Your task to perform on an android device: add a contact Image 0: 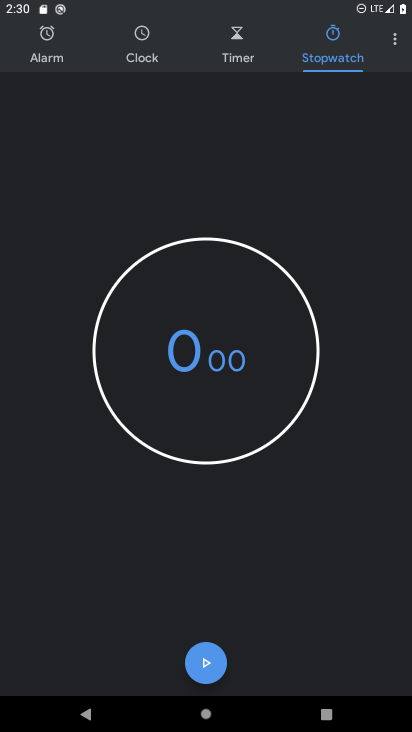
Step 0: press home button
Your task to perform on an android device: add a contact Image 1: 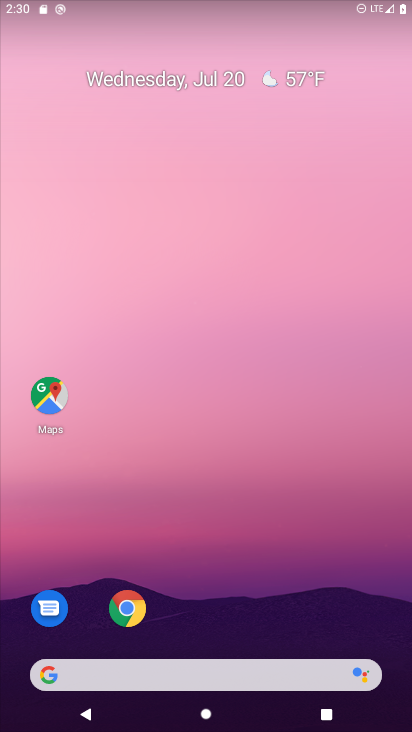
Step 1: drag from (240, 720) to (228, 158)
Your task to perform on an android device: add a contact Image 2: 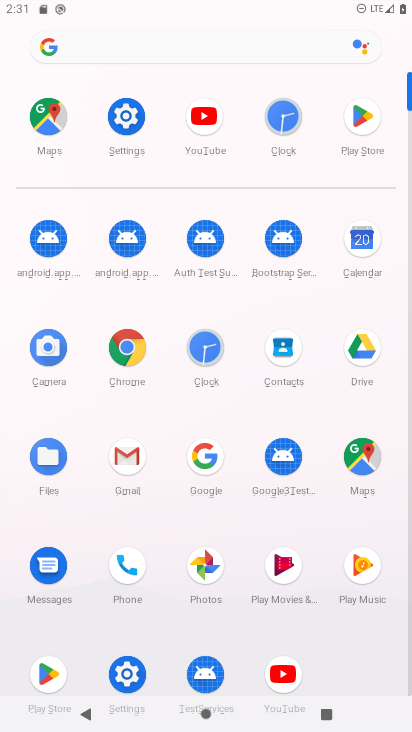
Step 2: click (290, 340)
Your task to perform on an android device: add a contact Image 3: 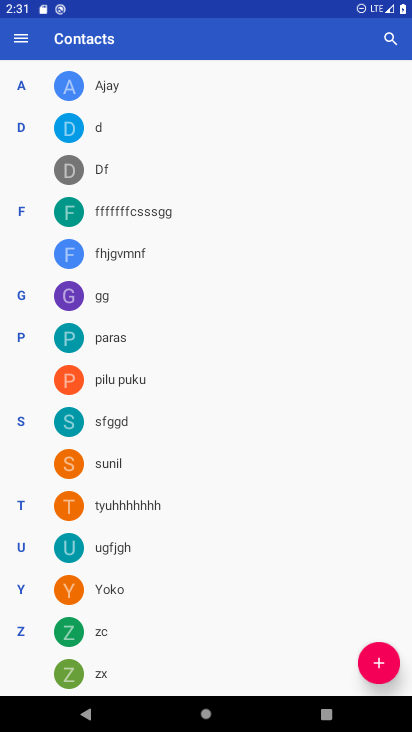
Step 3: click (379, 666)
Your task to perform on an android device: add a contact Image 4: 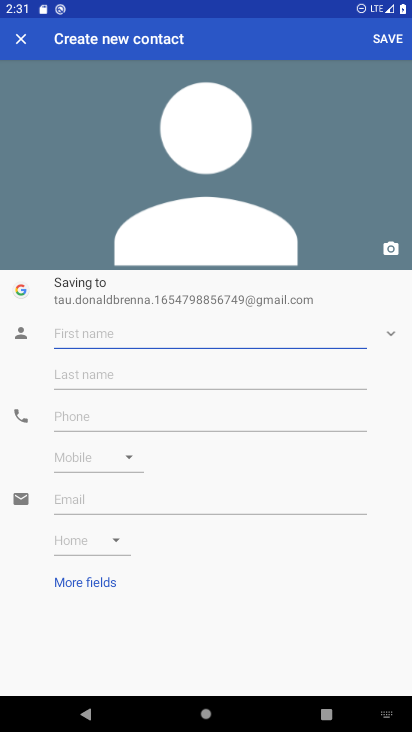
Step 4: type "parshuram"
Your task to perform on an android device: add a contact Image 5: 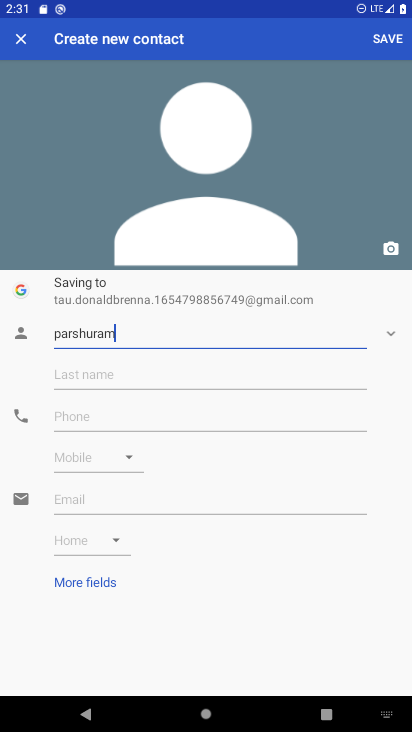
Step 5: click (115, 406)
Your task to perform on an android device: add a contact Image 6: 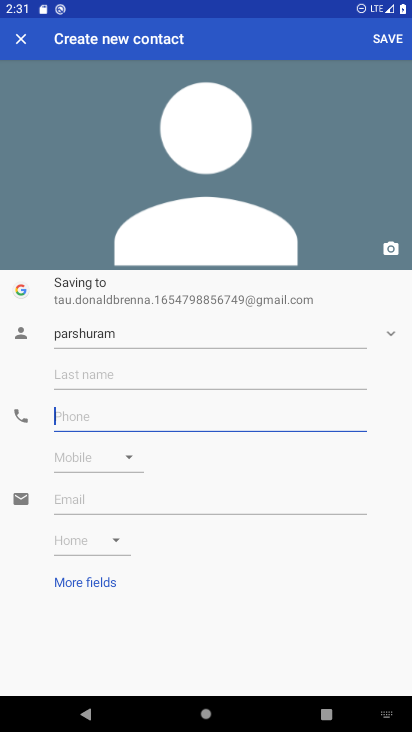
Step 6: type "876789"
Your task to perform on an android device: add a contact Image 7: 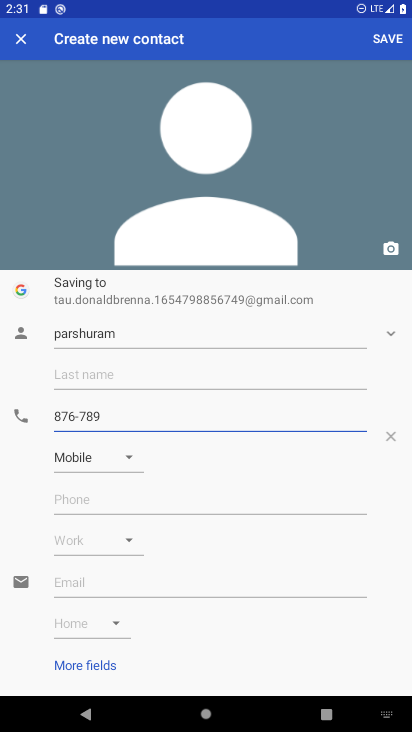
Step 7: click (387, 39)
Your task to perform on an android device: add a contact Image 8: 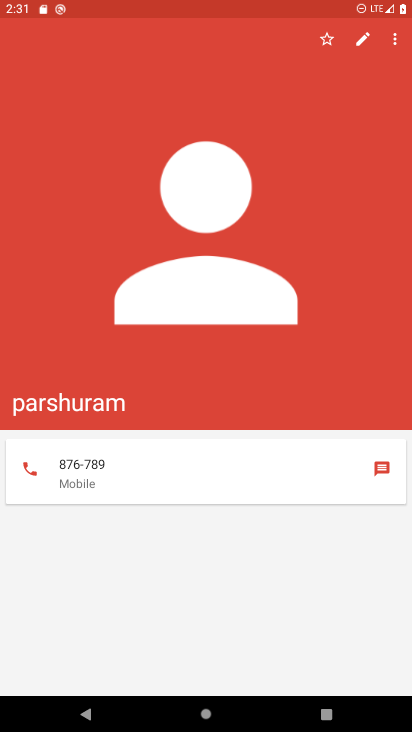
Step 8: task complete